Your task to perform on an android device: open app "NewsBreak: Local News & Alerts" (install if not already installed), go to login, and select forgot password Image 0: 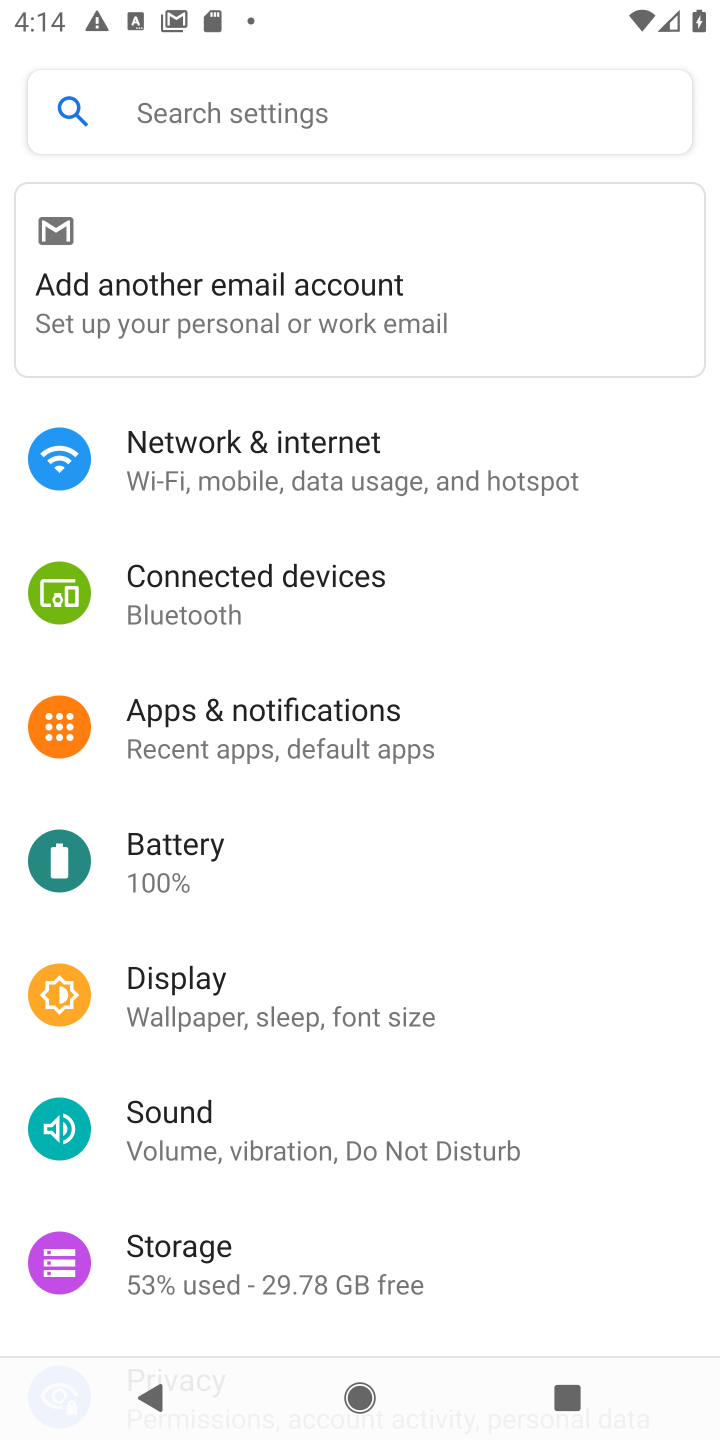
Step 0: press home button
Your task to perform on an android device: open app "NewsBreak: Local News & Alerts" (install if not already installed), go to login, and select forgot password Image 1: 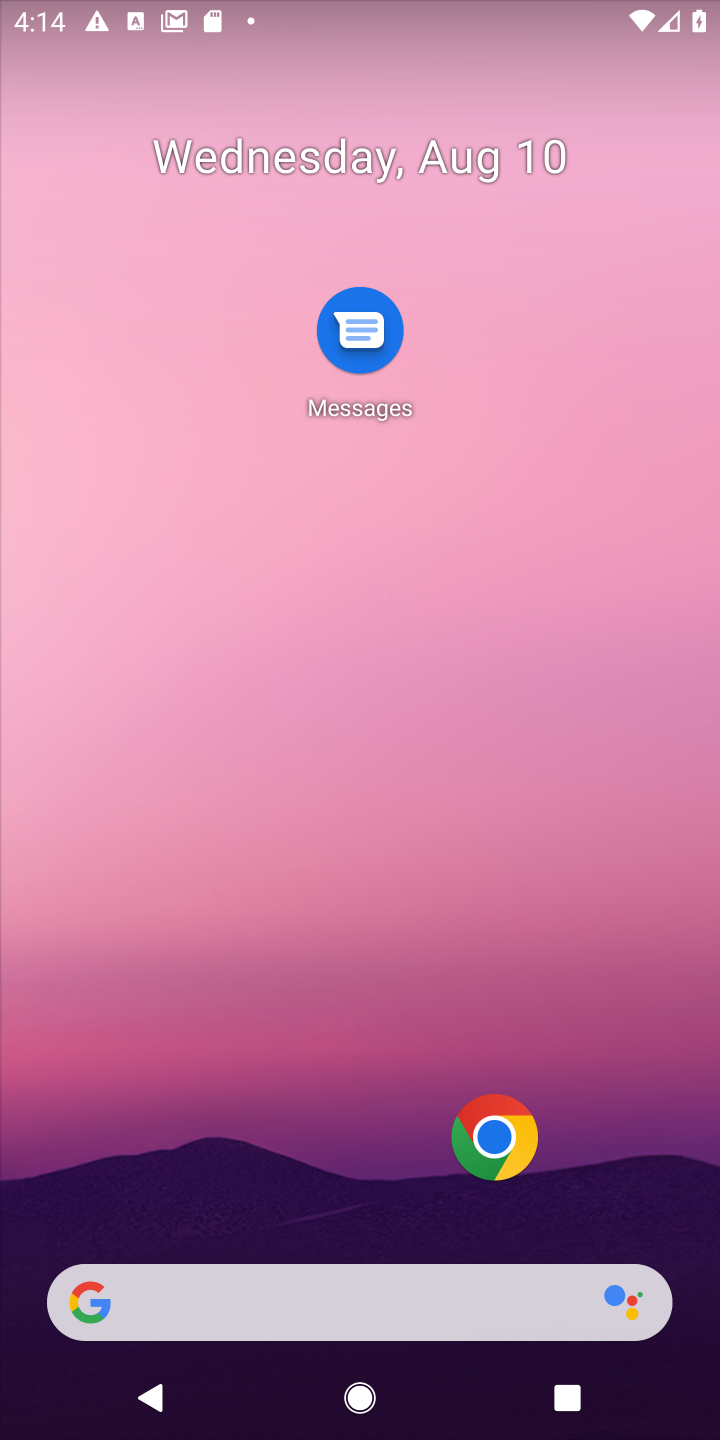
Step 1: drag from (302, 799) to (352, 247)
Your task to perform on an android device: open app "NewsBreak: Local News & Alerts" (install if not already installed), go to login, and select forgot password Image 2: 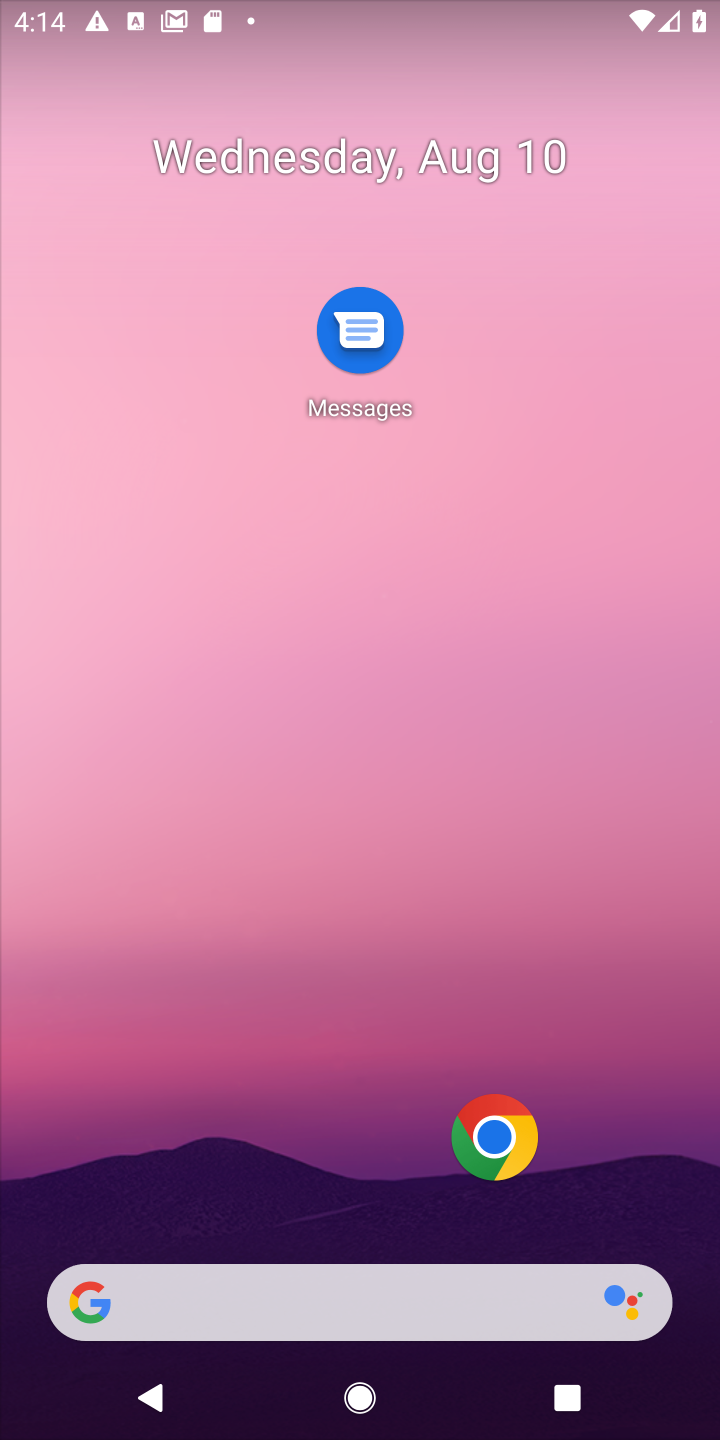
Step 2: drag from (277, 1134) to (294, 33)
Your task to perform on an android device: open app "NewsBreak: Local News & Alerts" (install if not already installed), go to login, and select forgot password Image 3: 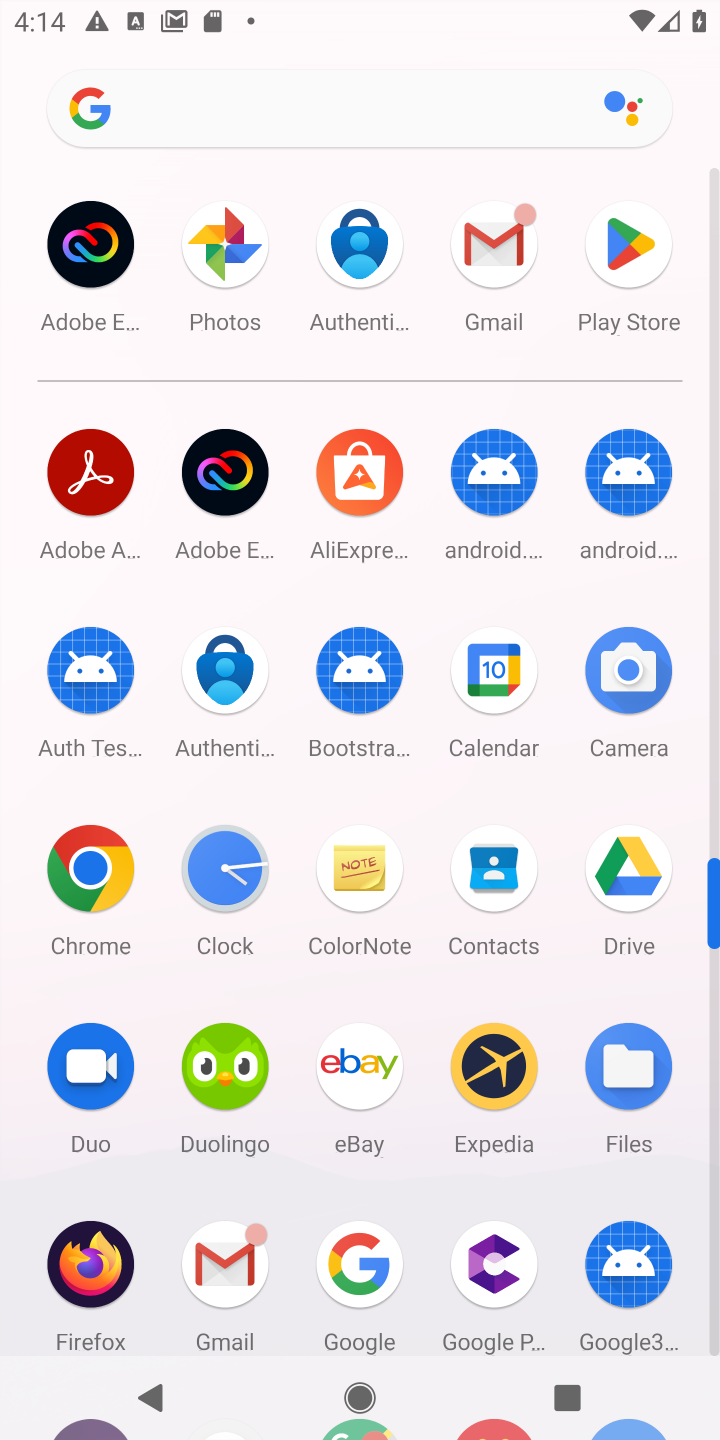
Step 3: click (644, 280)
Your task to perform on an android device: open app "NewsBreak: Local News & Alerts" (install if not already installed), go to login, and select forgot password Image 4: 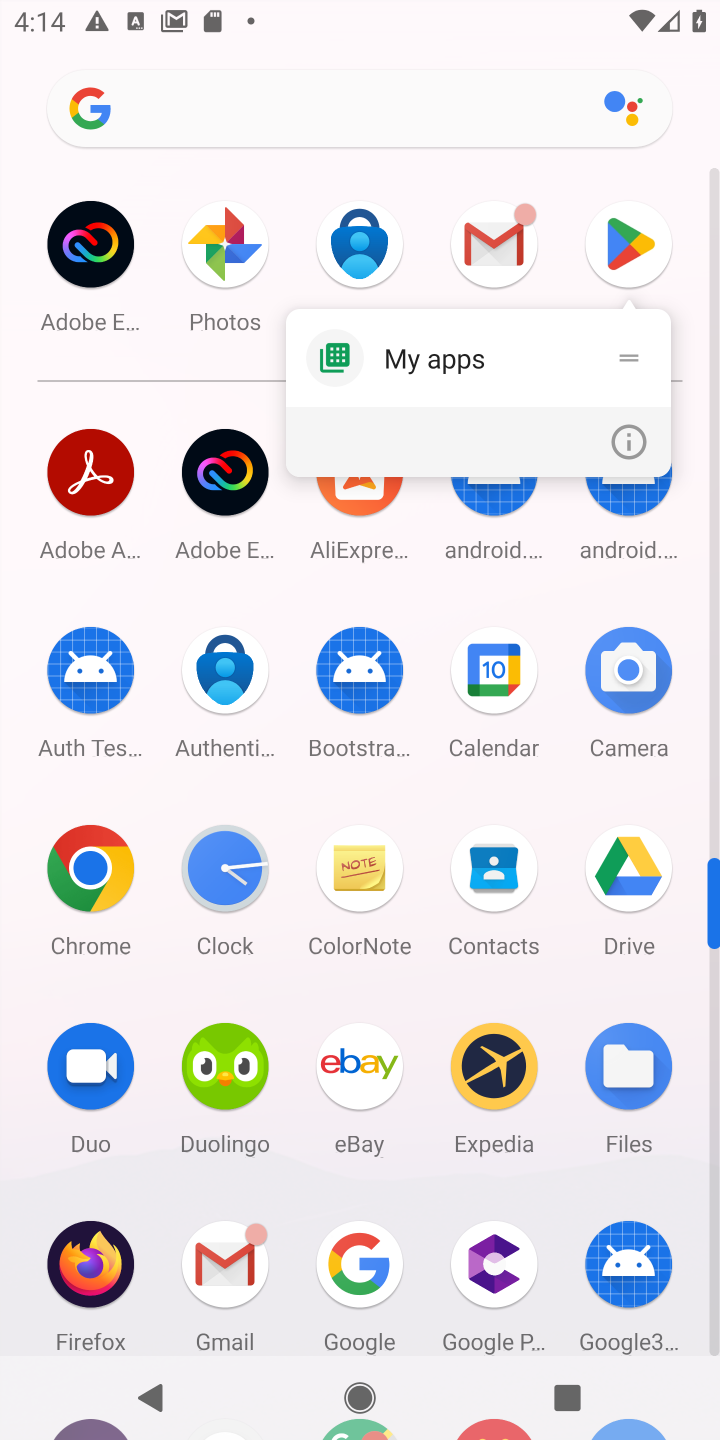
Step 4: click (632, 243)
Your task to perform on an android device: open app "NewsBreak: Local News & Alerts" (install if not already installed), go to login, and select forgot password Image 5: 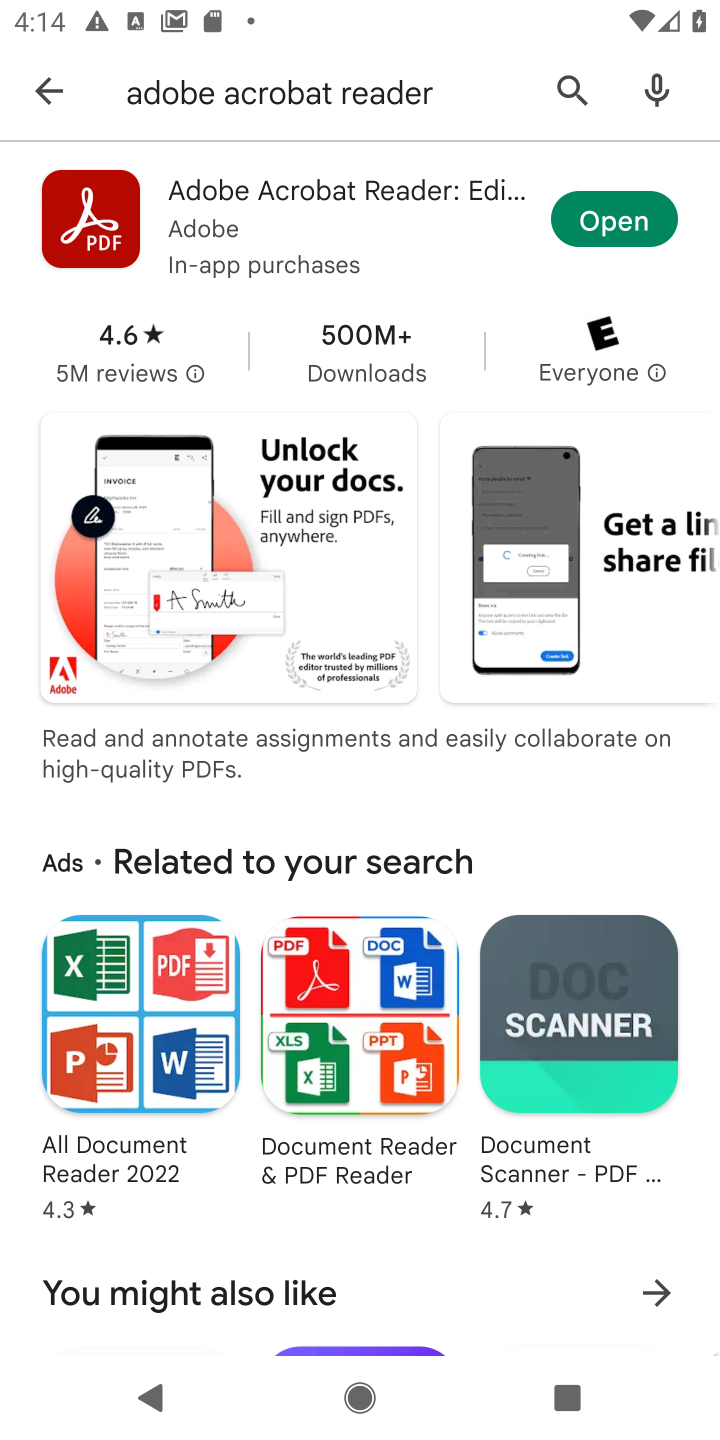
Step 5: click (290, 83)
Your task to perform on an android device: open app "NewsBreak: Local News & Alerts" (install if not already installed), go to login, and select forgot password Image 6: 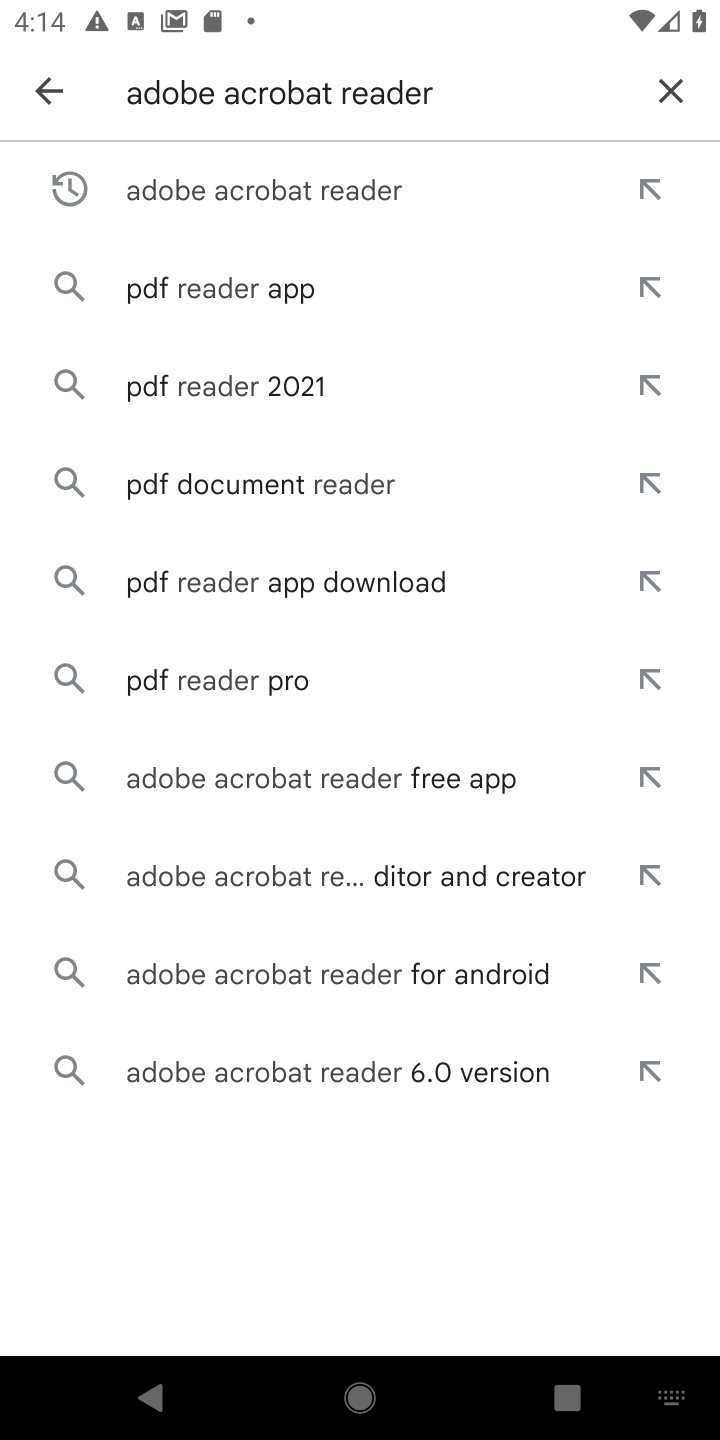
Step 6: click (661, 83)
Your task to perform on an android device: open app "NewsBreak: Local News & Alerts" (install if not already installed), go to login, and select forgot password Image 7: 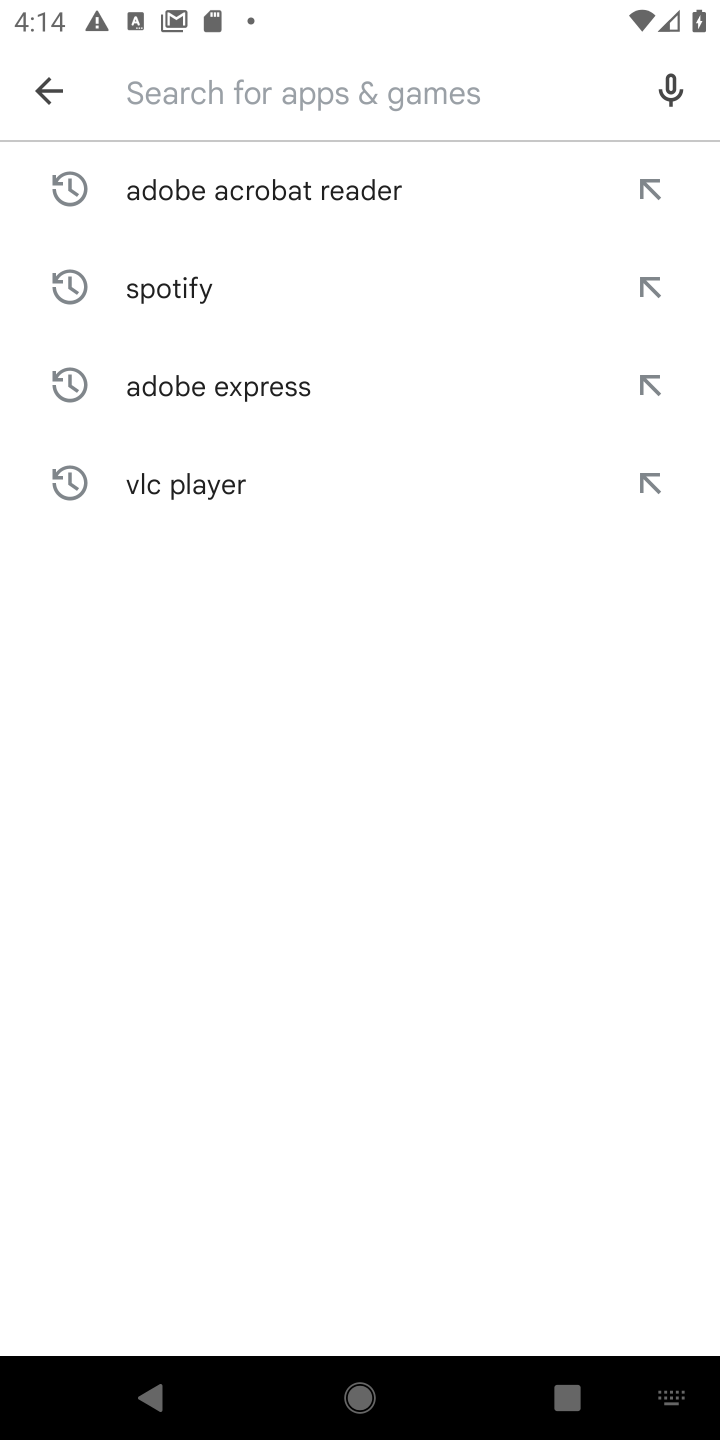
Step 7: type "news break"
Your task to perform on an android device: open app "NewsBreak: Local News & Alerts" (install if not already installed), go to login, and select forgot password Image 8: 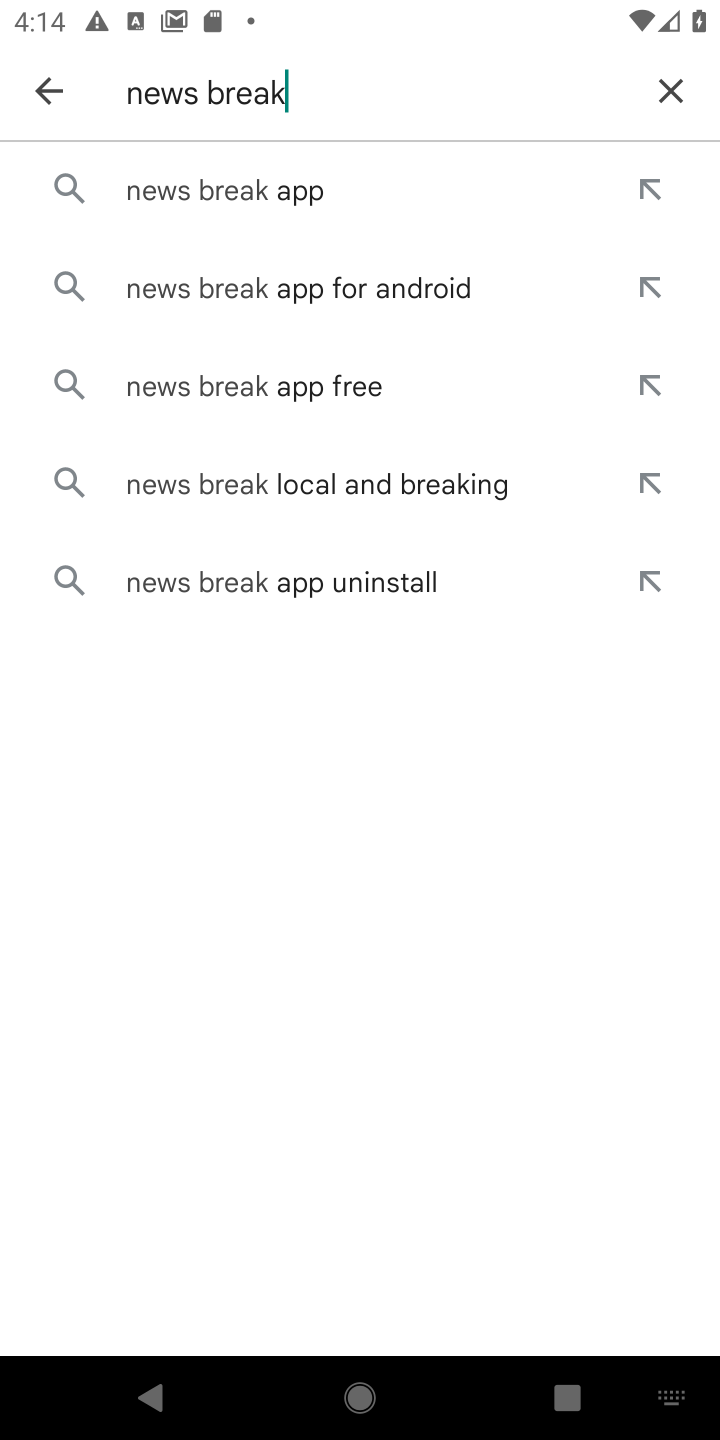
Step 8: click (215, 201)
Your task to perform on an android device: open app "NewsBreak: Local News & Alerts" (install if not already installed), go to login, and select forgot password Image 9: 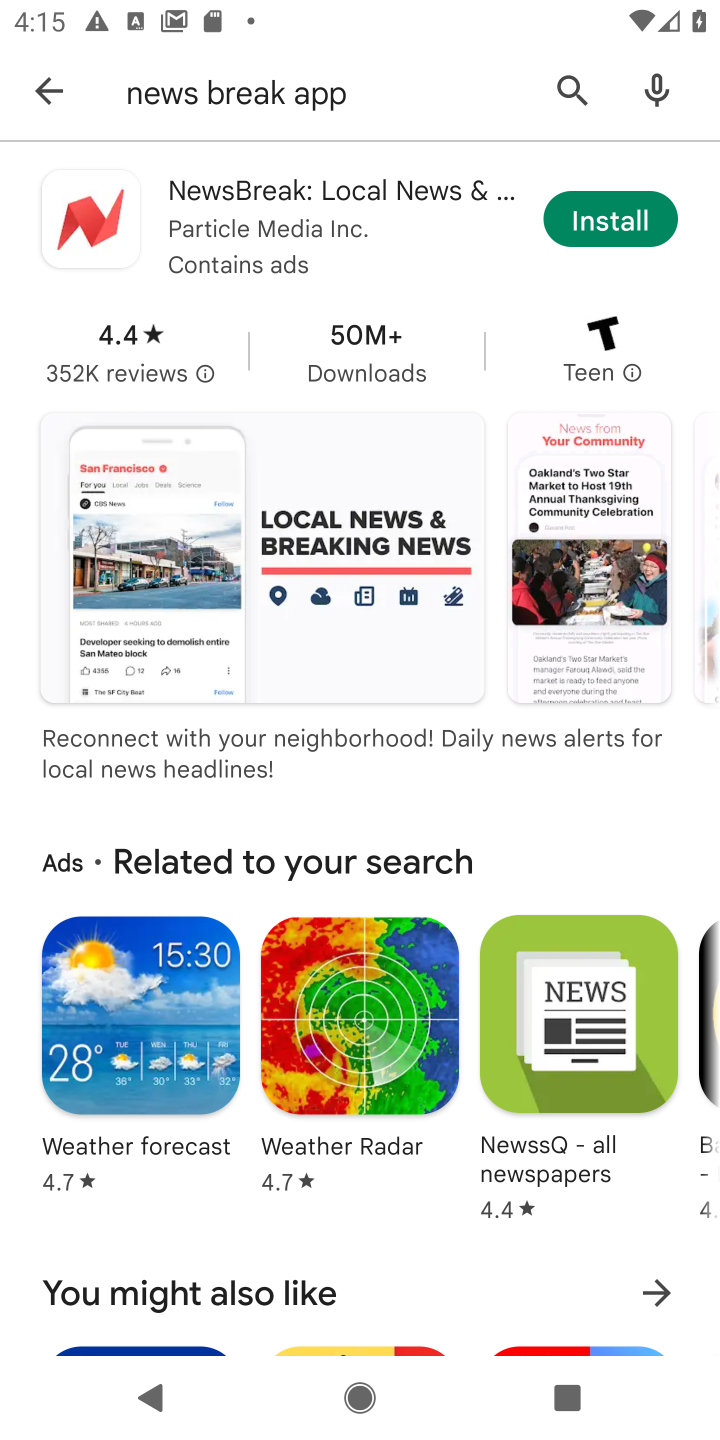
Step 9: click (636, 224)
Your task to perform on an android device: open app "NewsBreak: Local News & Alerts" (install if not already installed), go to login, and select forgot password Image 10: 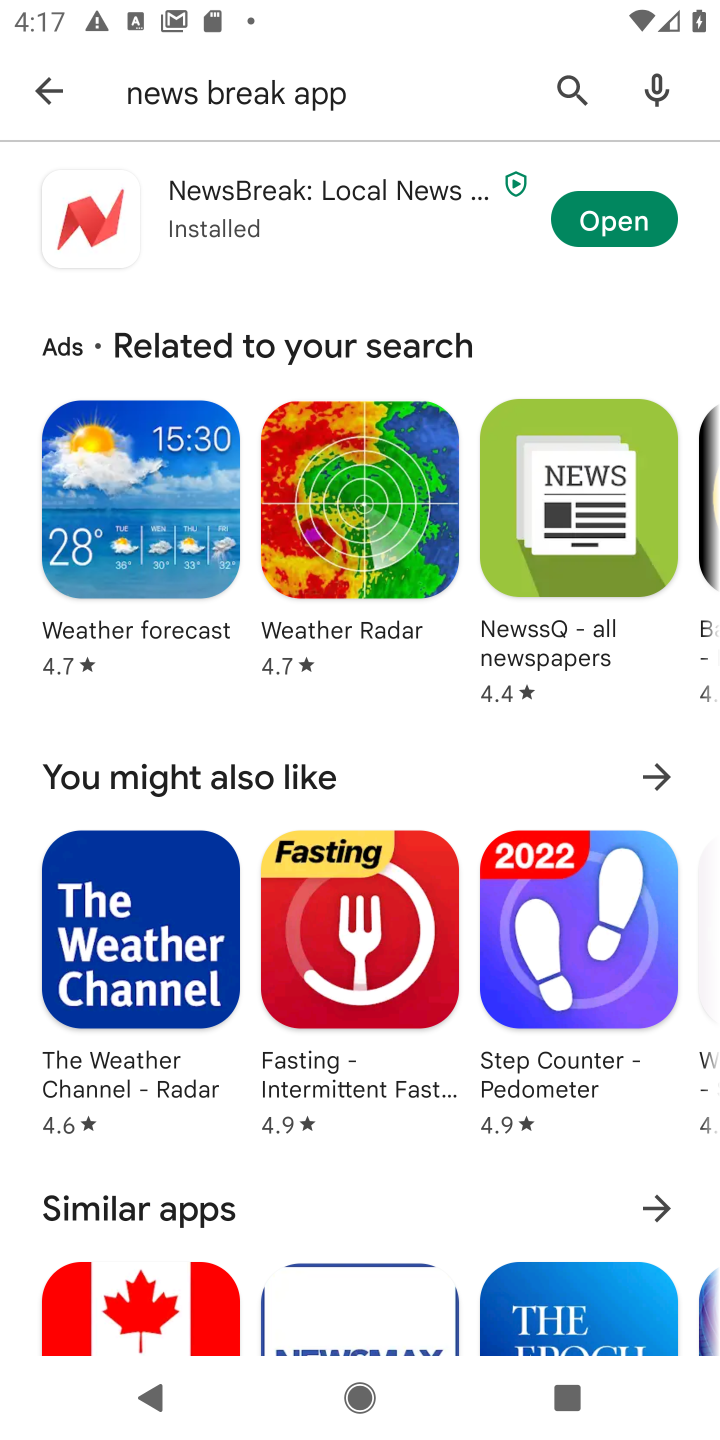
Step 10: click (594, 241)
Your task to perform on an android device: open app "NewsBreak: Local News & Alerts" (install if not already installed), go to login, and select forgot password Image 11: 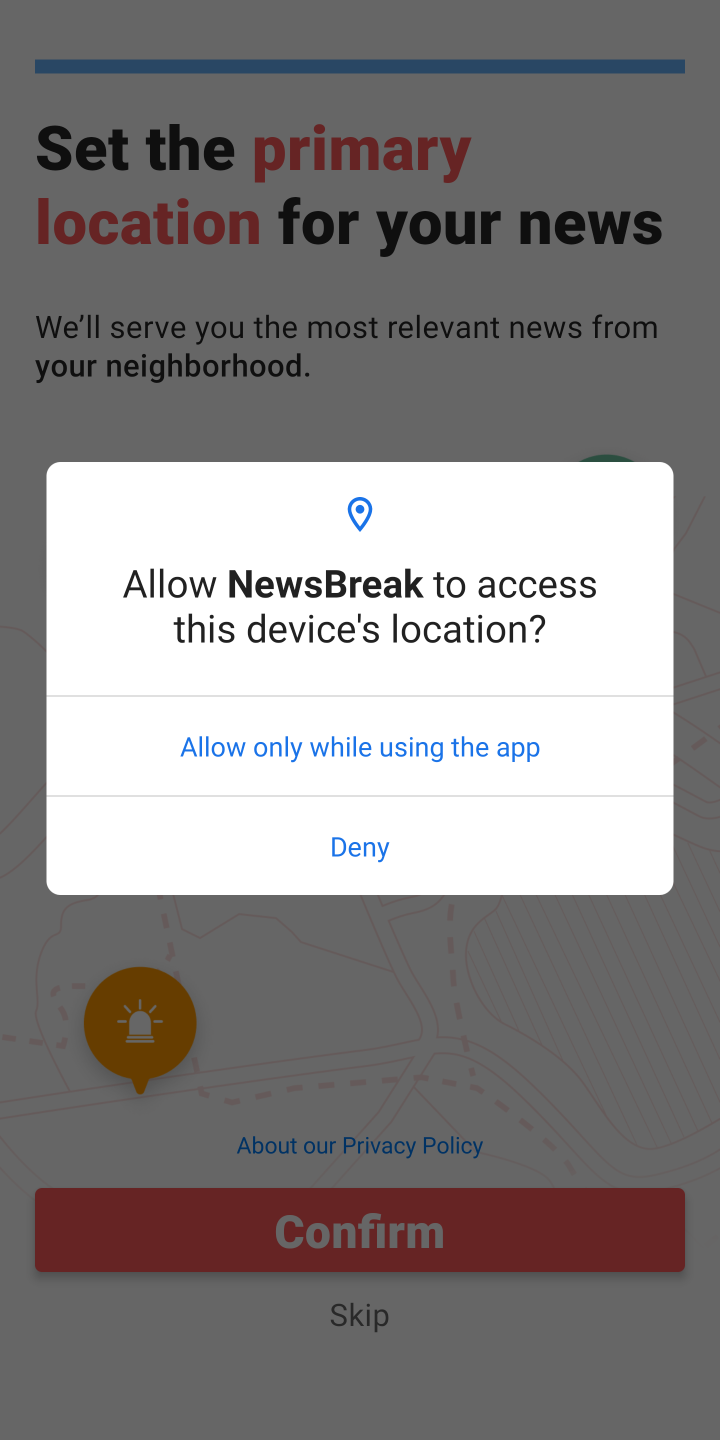
Step 11: click (506, 742)
Your task to perform on an android device: open app "NewsBreak: Local News & Alerts" (install if not already installed), go to login, and select forgot password Image 12: 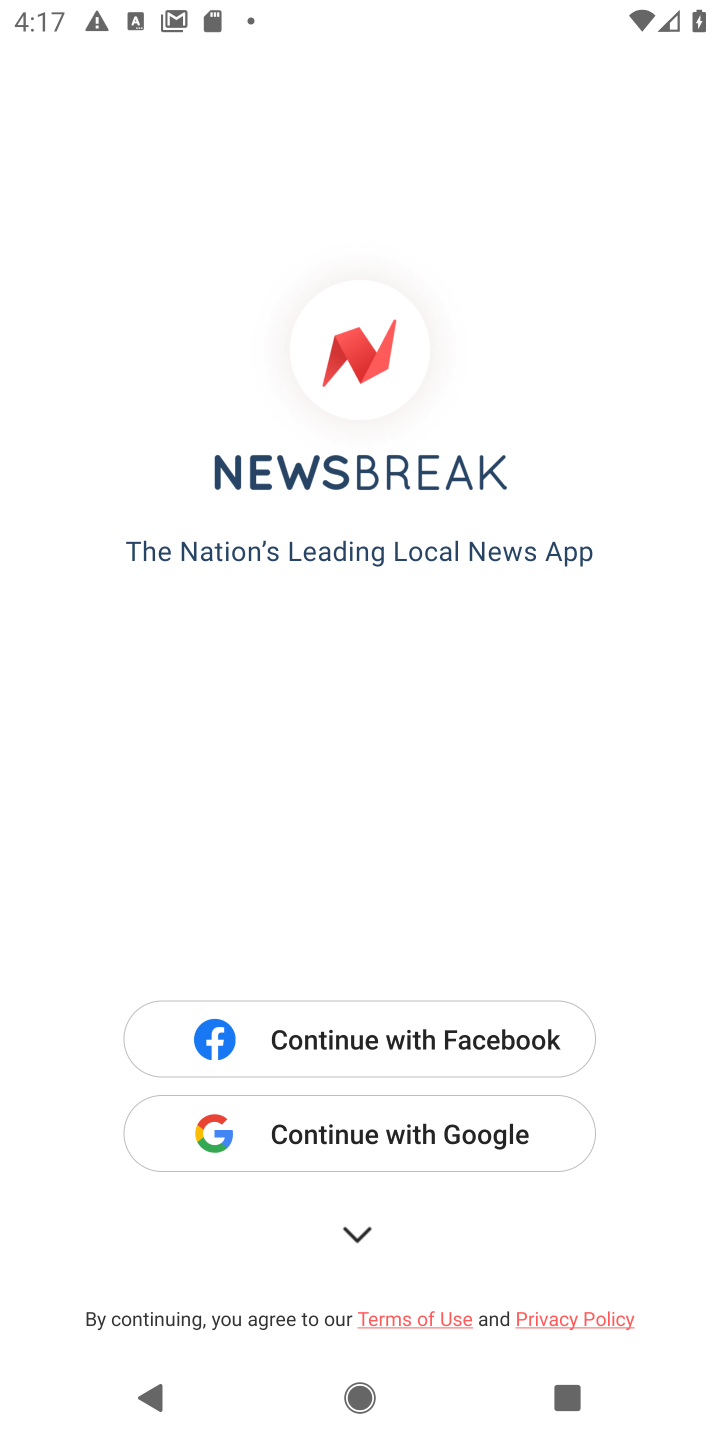
Step 12: click (404, 1124)
Your task to perform on an android device: open app "NewsBreak: Local News & Alerts" (install if not already installed), go to login, and select forgot password Image 13: 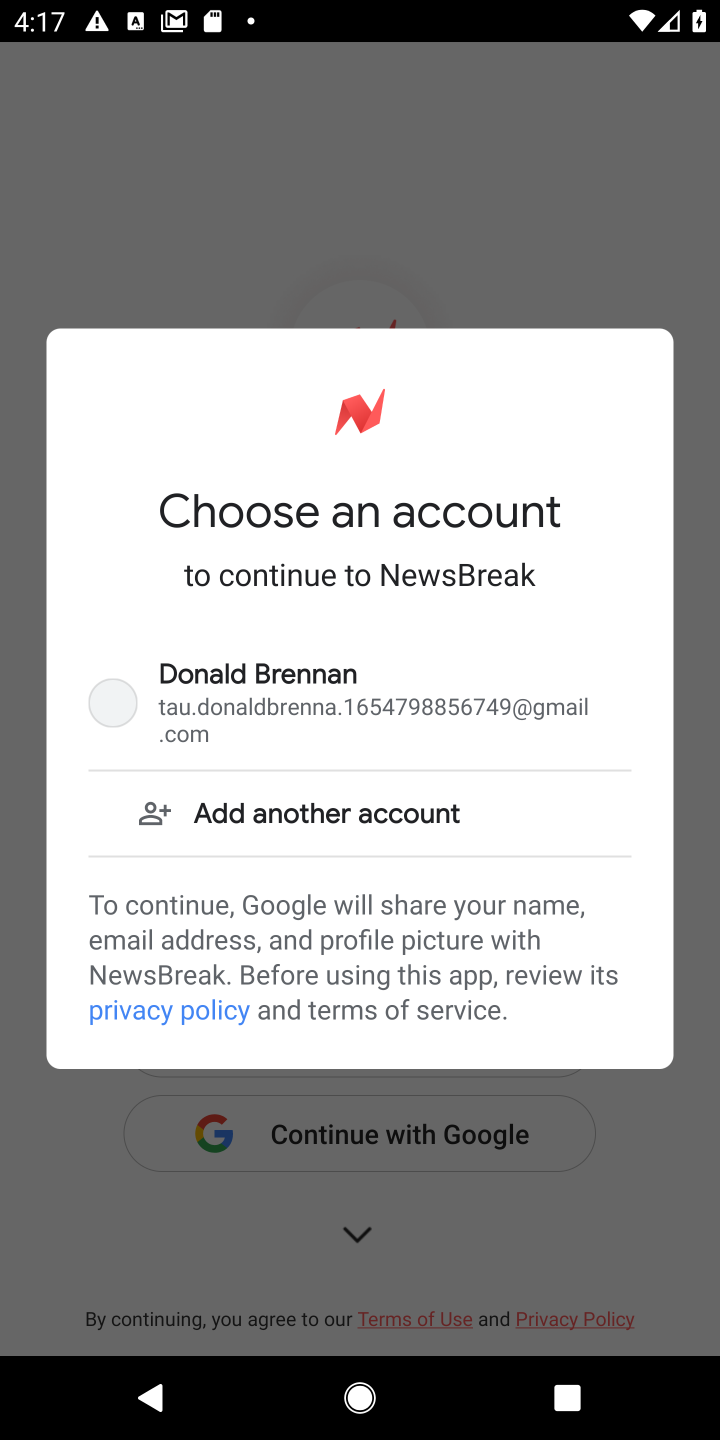
Step 13: click (448, 693)
Your task to perform on an android device: open app "NewsBreak: Local News & Alerts" (install if not already installed), go to login, and select forgot password Image 14: 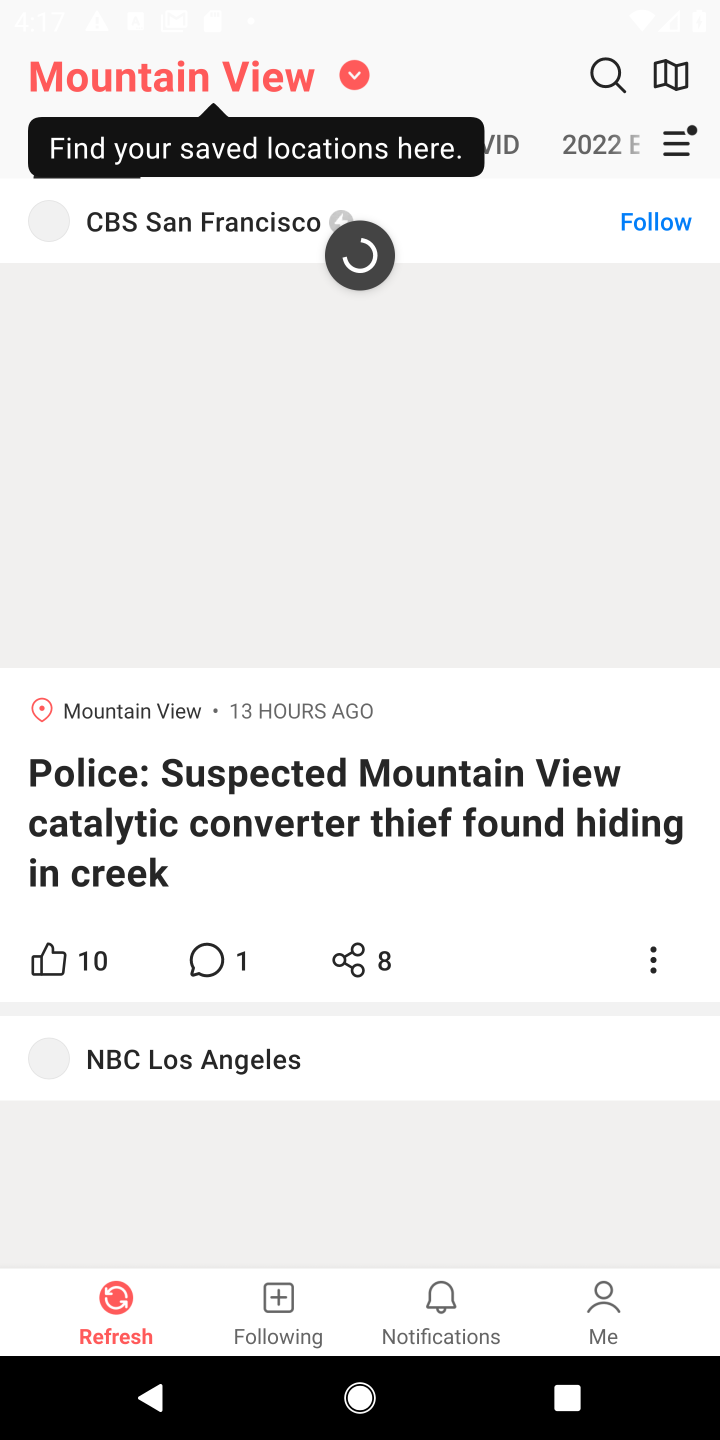
Step 14: click (680, 128)
Your task to perform on an android device: open app "NewsBreak: Local News & Alerts" (install if not already installed), go to login, and select forgot password Image 15: 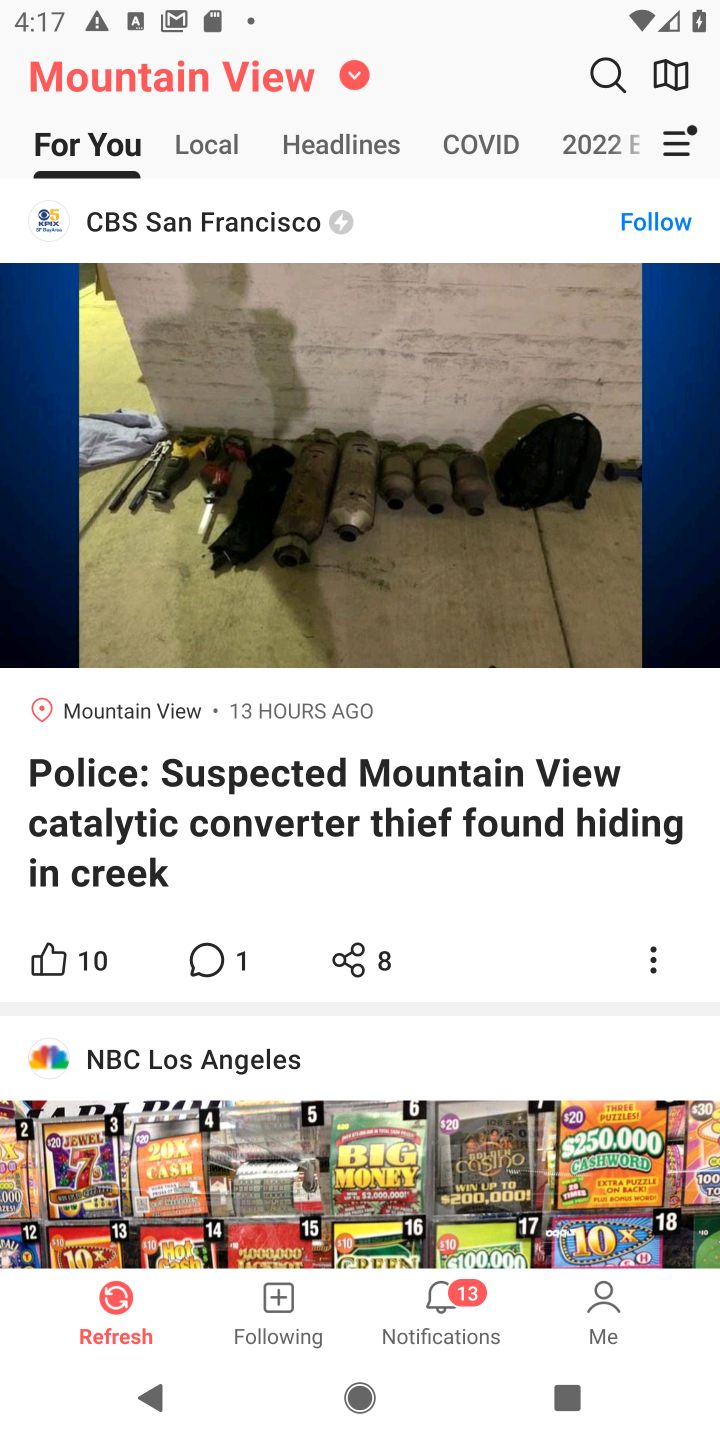
Step 15: click (673, 137)
Your task to perform on an android device: open app "NewsBreak: Local News & Alerts" (install if not already installed), go to login, and select forgot password Image 16: 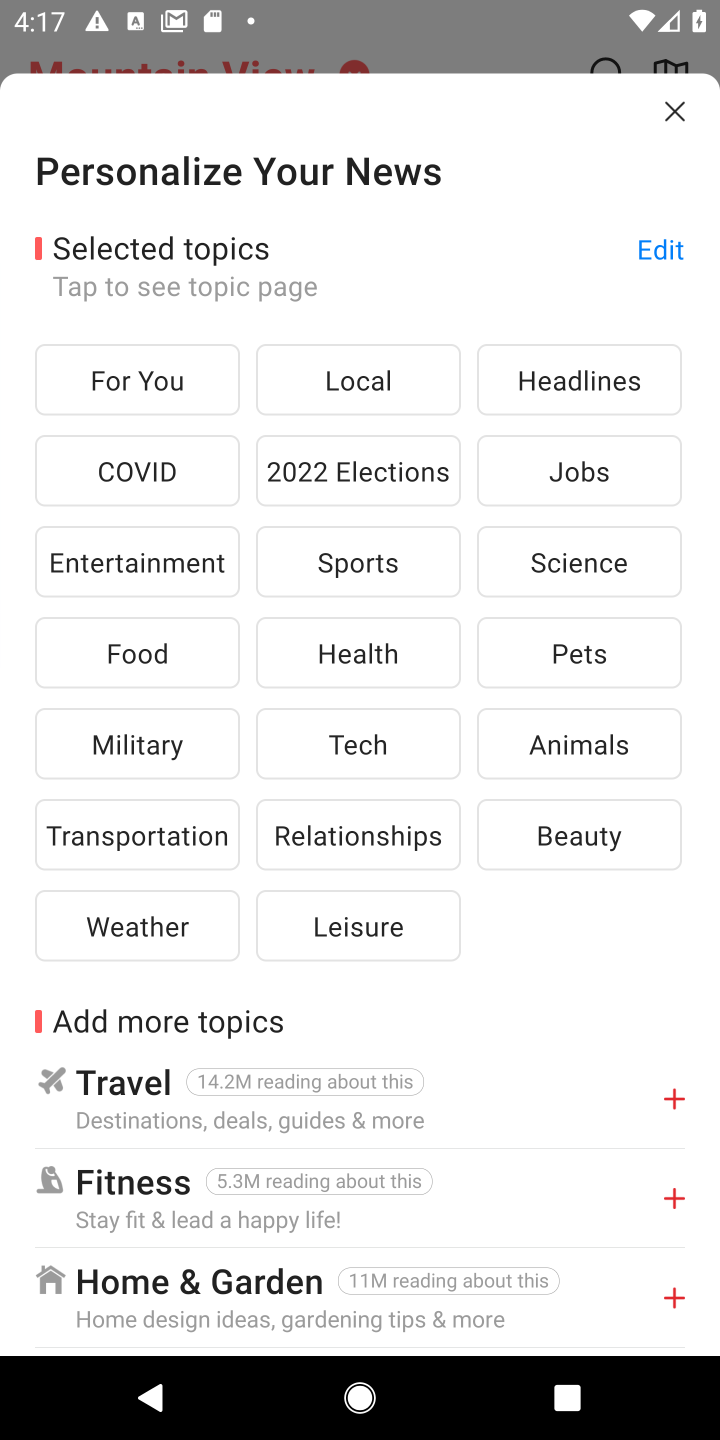
Step 16: task complete